Your task to perform on an android device: Open battery settings Image 0: 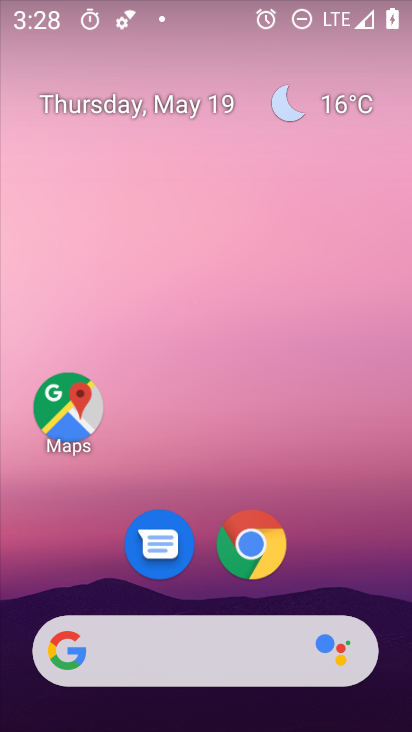
Step 0: drag from (349, 563) to (276, 81)
Your task to perform on an android device: Open battery settings Image 1: 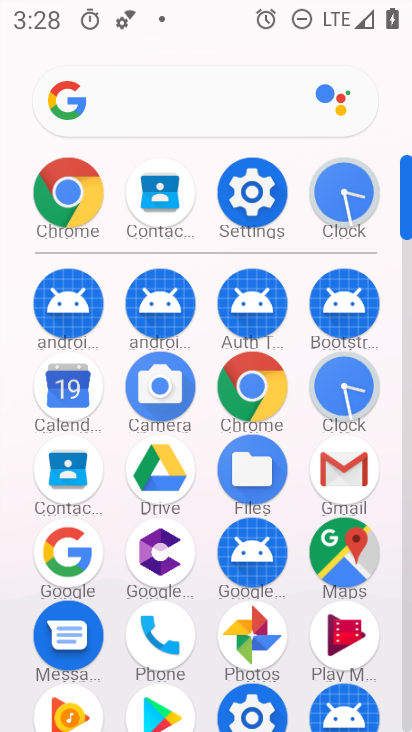
Step 1: click (255, 181)
Your task to perform on an android device: Open battery settings Image 2: 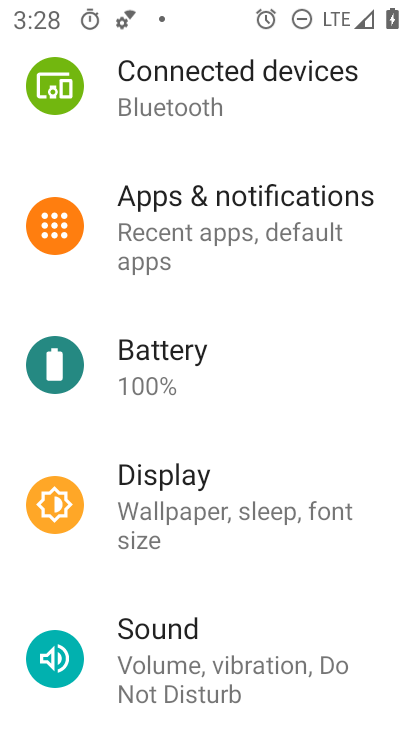
Step 2: click (225, 381)
Your task to perform on an android device: Open battery settings Image 3: 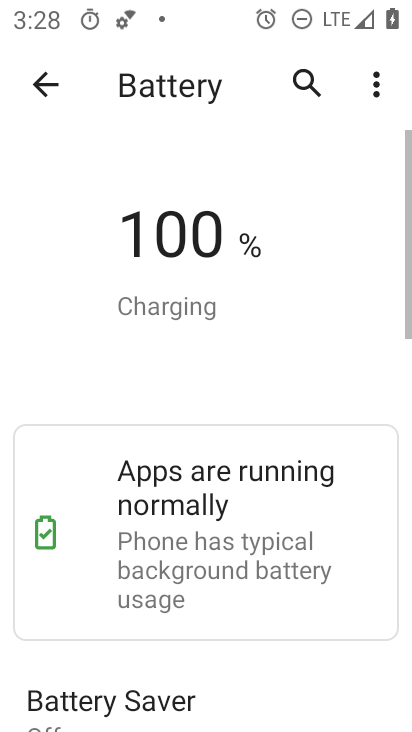
Step 3: task complete